Your task to perform on an android device: turn off location Image 0: 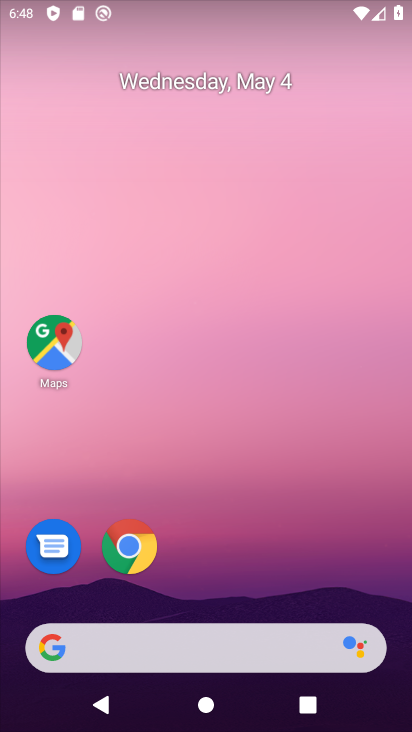
Step 0: drag from (314, 496) to (286, 254)
Your task to perform on an android device: turn off location Image 1: 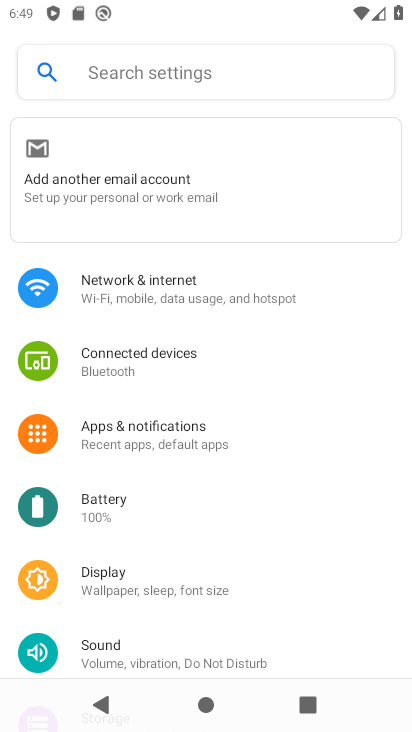
Step 1: press home button
Your task to perform on an android device: turn off location Image 2: 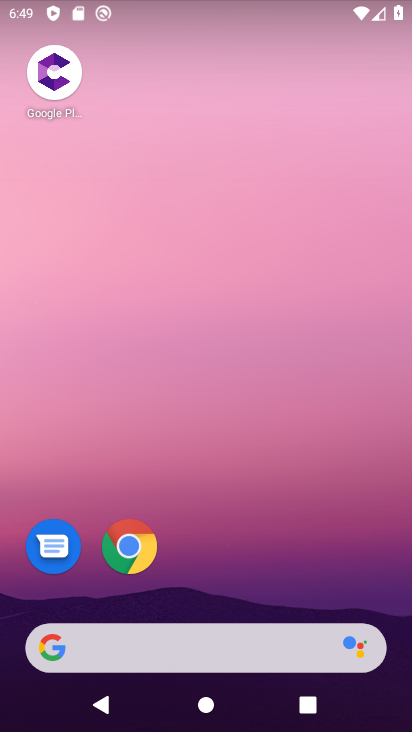
Step 2: drag from (255, 590) to (231, 88)
Your task to perform on an android device: turn off location Image 3: 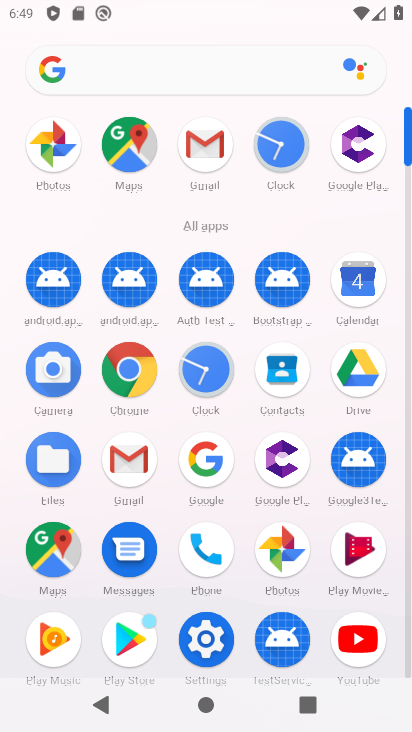
Step 3: drag from (241, 223) to (224, 38)
Your task to perform on an android device: turn off location Image 4: 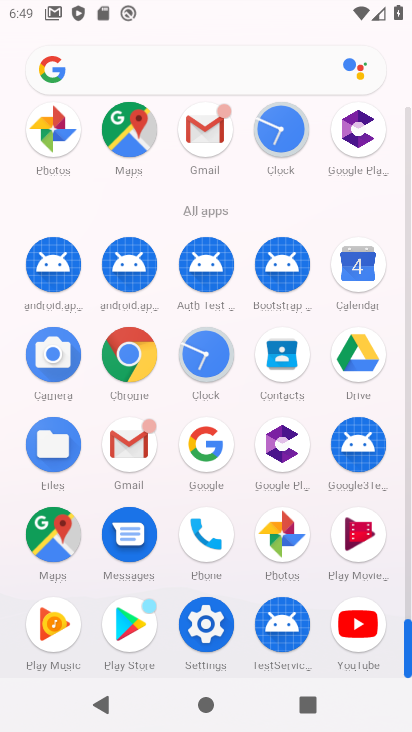
Step 4: drag from (176, 3) to (126, 475)
Your task to perform on an android device: turn off location Image 5: 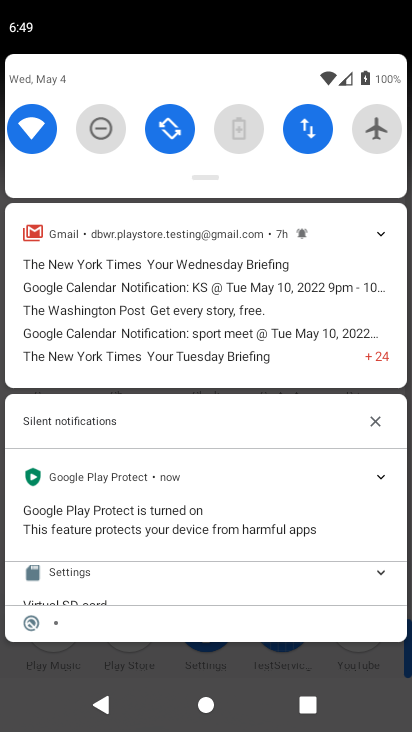
Step 5: drag from (190, 172) to (138, 661)
Your task to perform on an android device: turn off location Image 6: 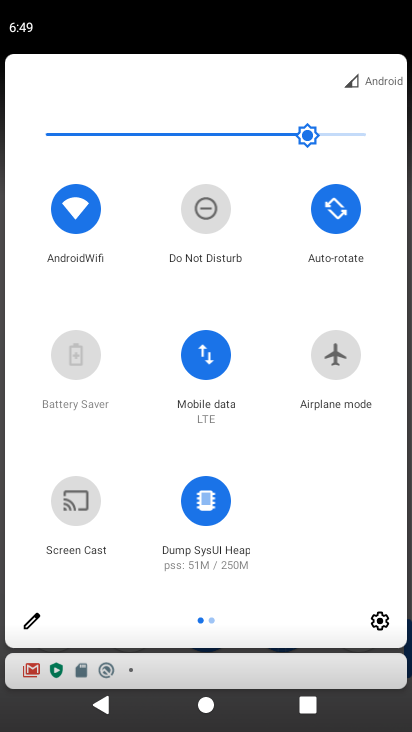
Step 6: click (29, 608)
Your task to perform on an android device: turn off location Image 7: 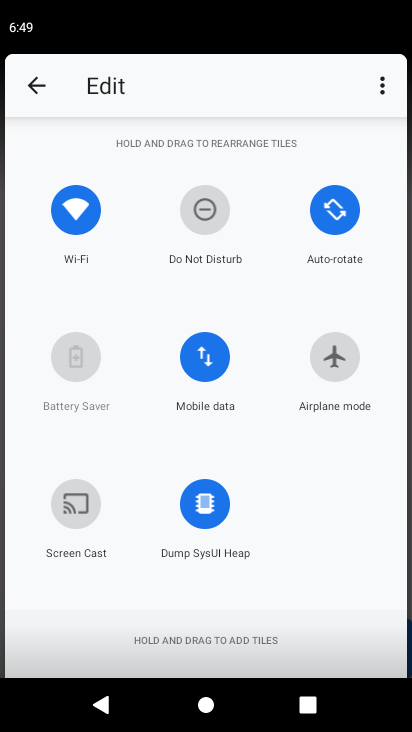
Step 7: drag from (235, 606) to (228, 366)
Your task to perform on an android device: turn off location Image 8: 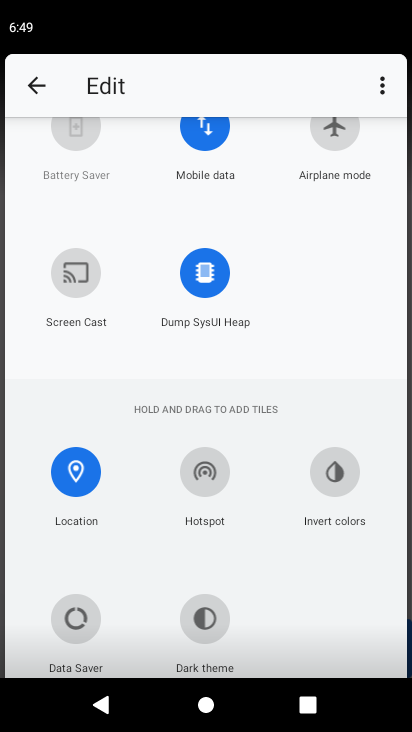
Step 8: drag from (80, 465) to (261, 323)
Your task to perform on an android device: turn off location Image 9: 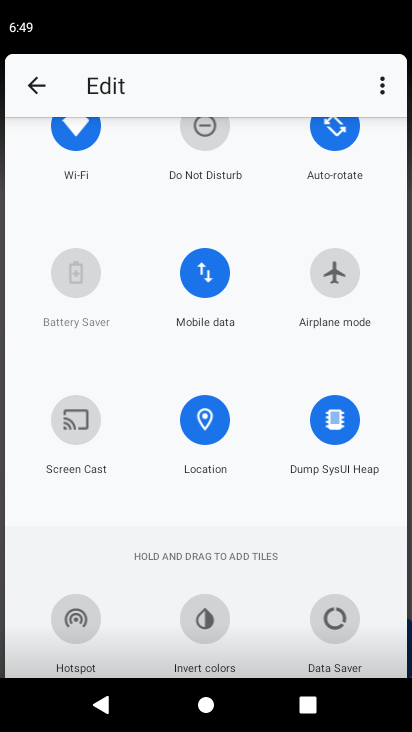
Step 9: click (40, 90)
Your task to perform on an android device: turn off location Image 10: 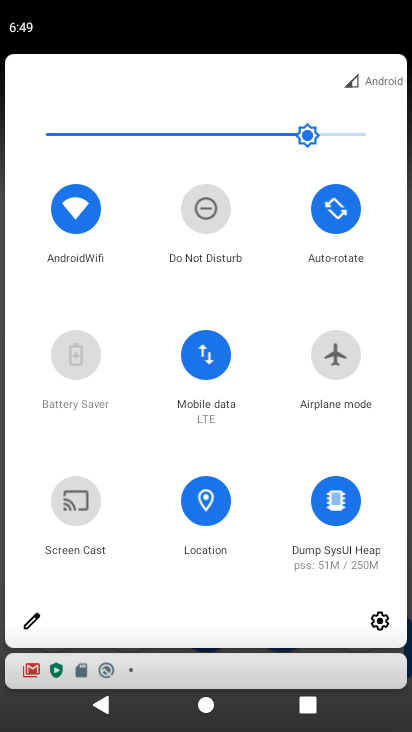
Step 10: click (214, 519)
Your task to perform on an android device: turn off location Image 11: 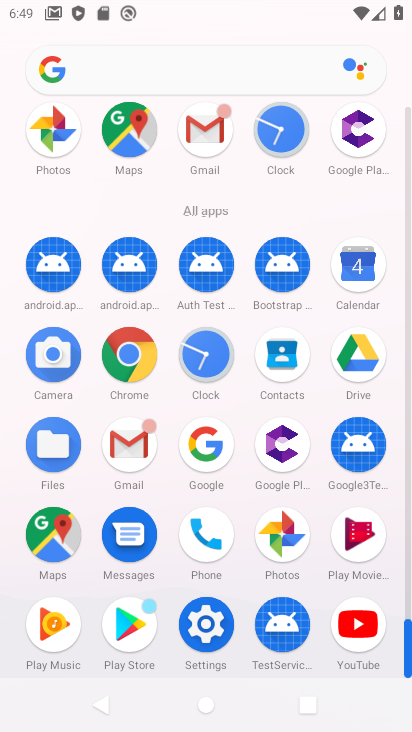
Step 11: task complete